Your task to perform on an android device: Go to ESPN.com Image 0: 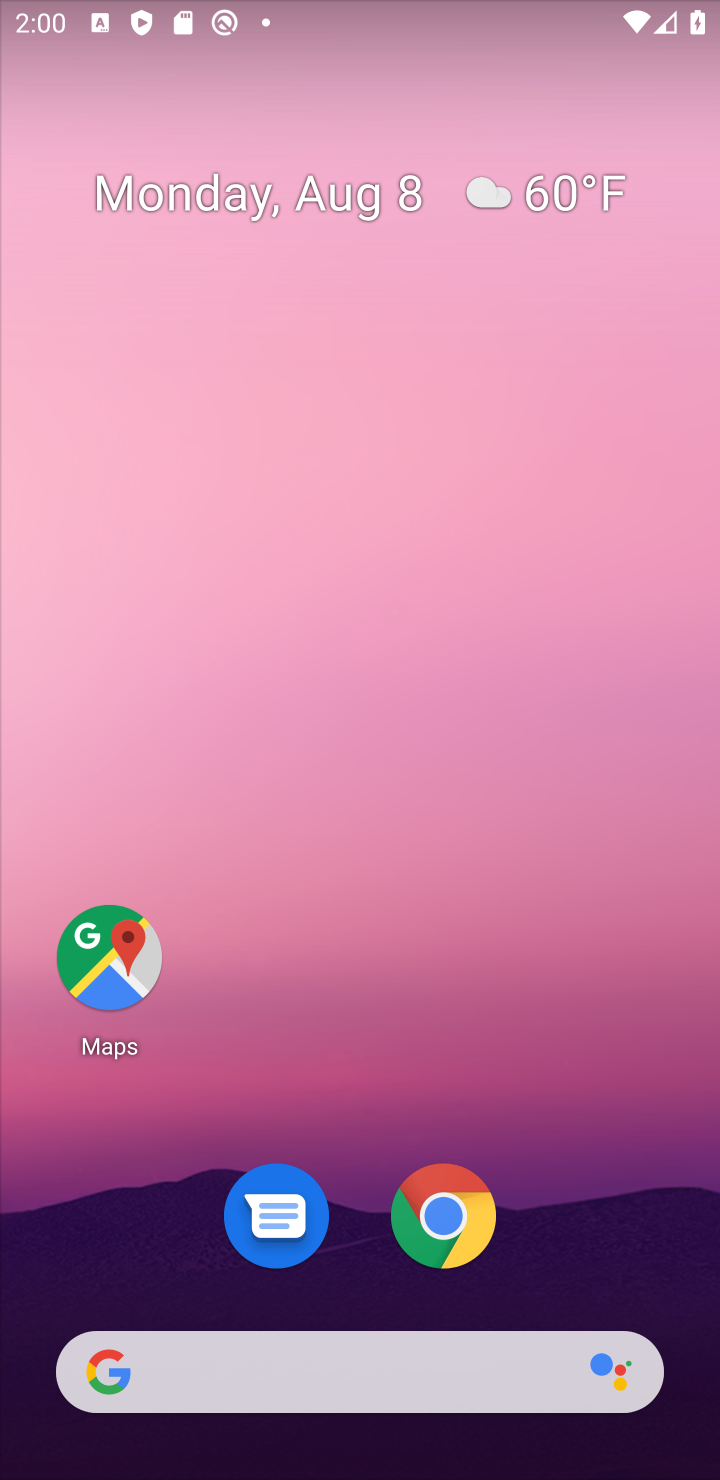
Step 0: drag from (445, 1325) to (469, 213)
Your task to perform on an android device: Go to ESPN.com Image 1: 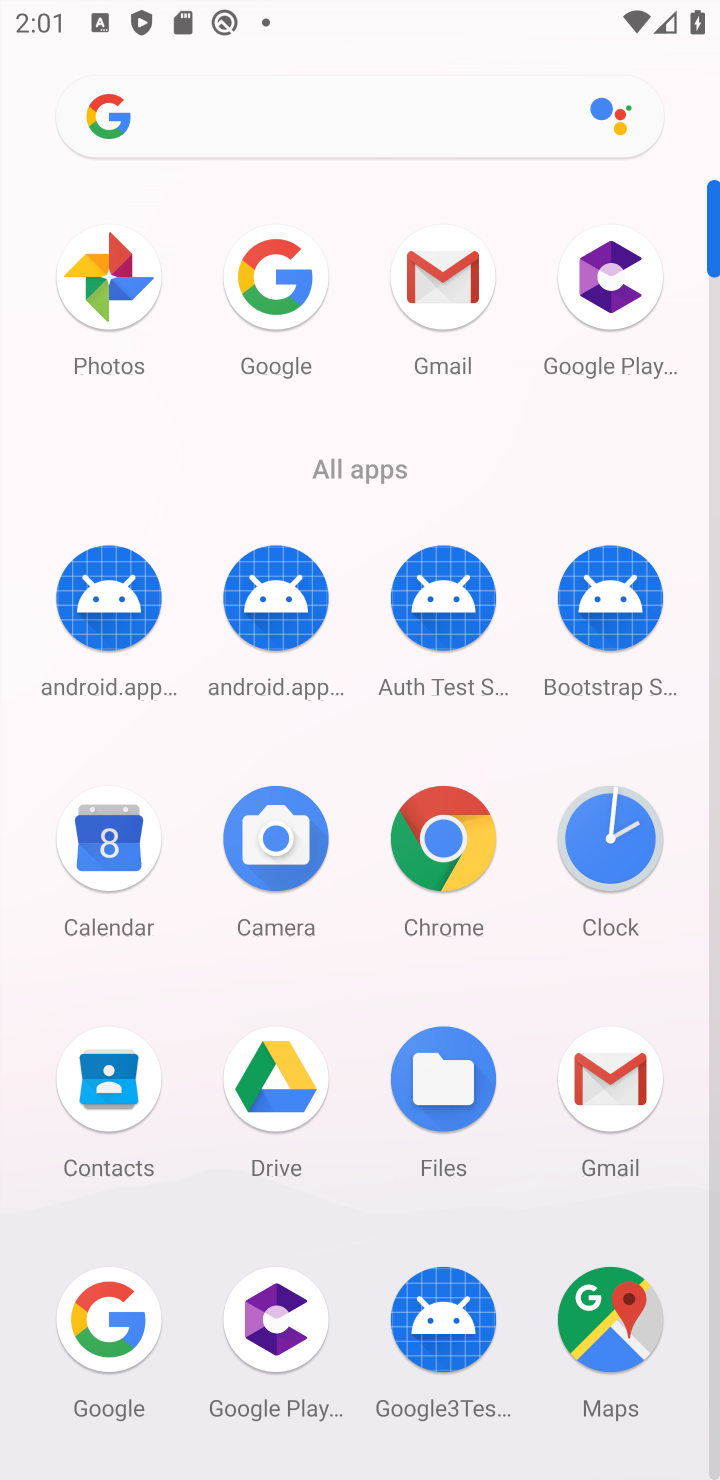
Step 1: click (462, 846)
Your task to perform on an android device: Go to ESPN.com Image 2: 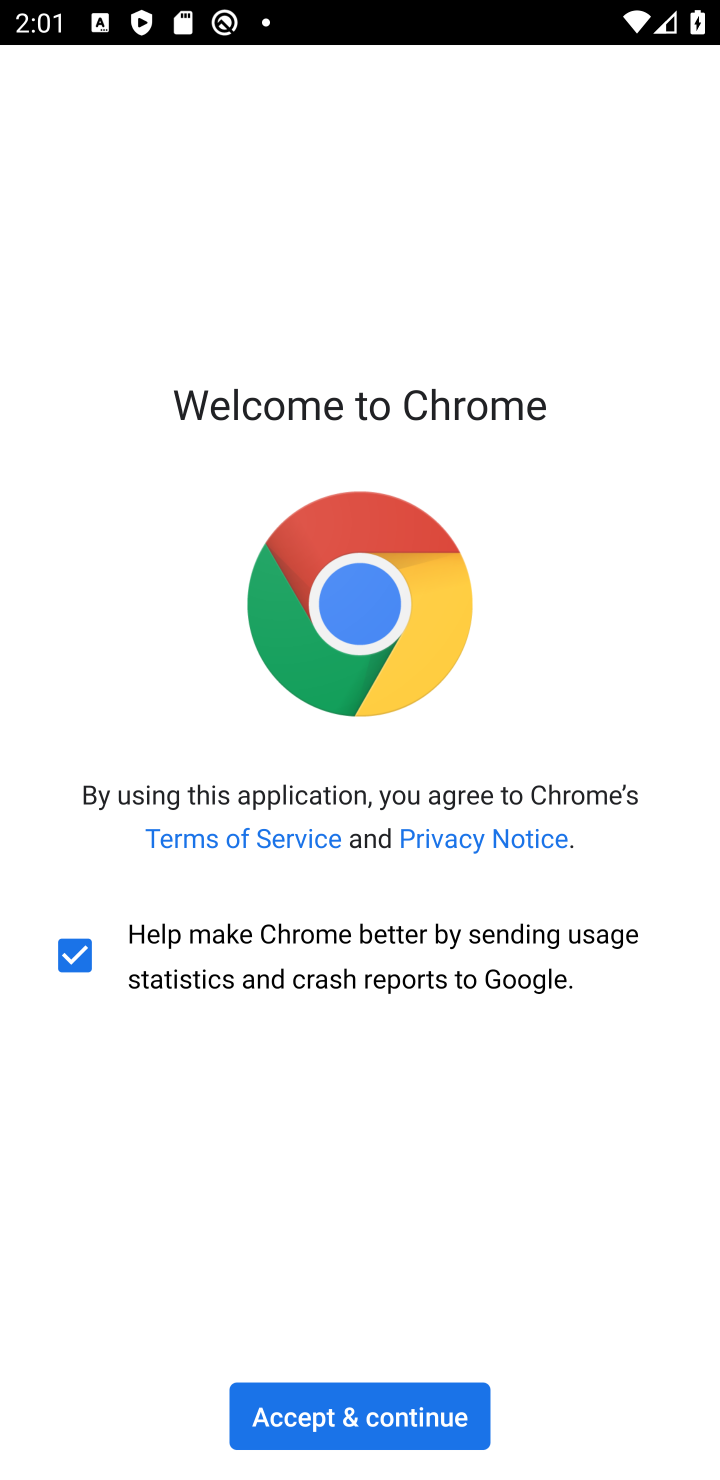
Step 2: click (435, 1416)
Your task to perform on an android device: Go to ESPN.com Image 3: 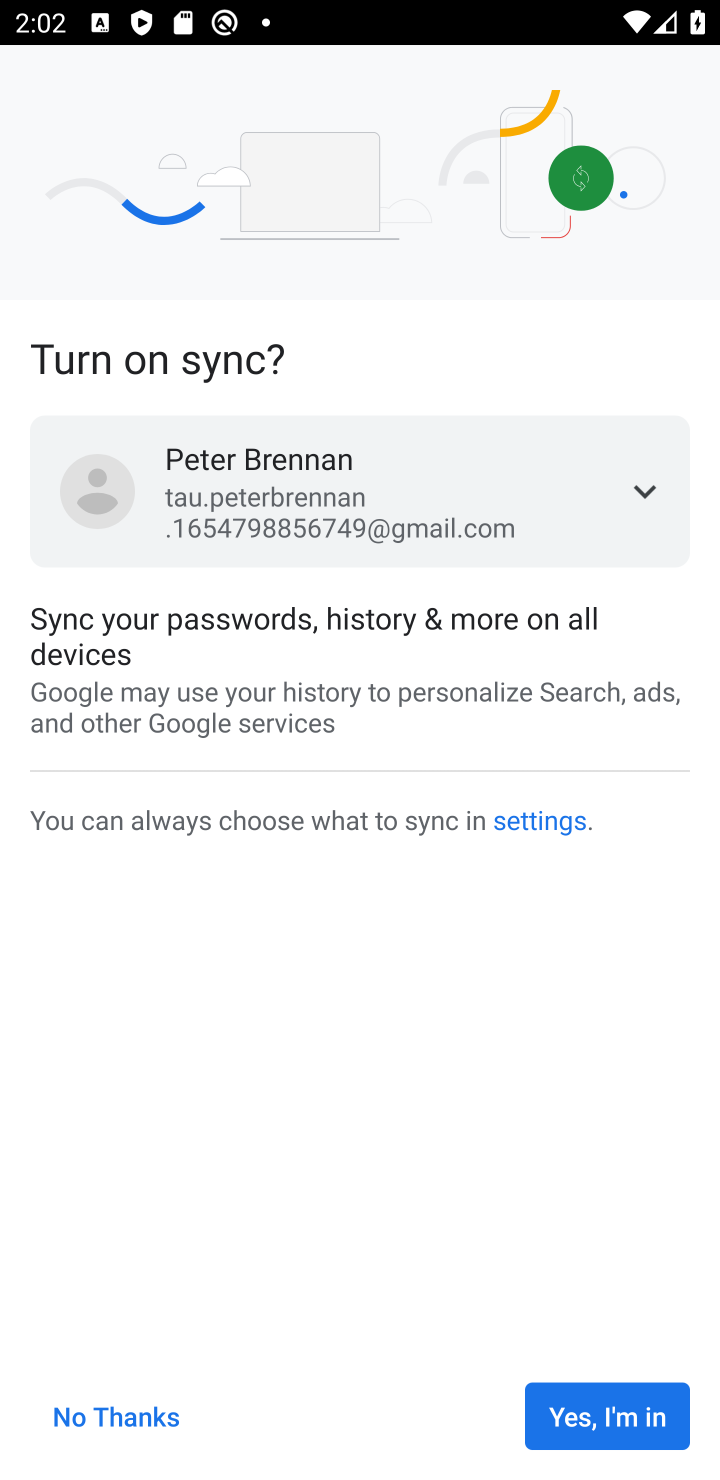
Step 3: click (586, 1411)
Your task to perform on an android device: Go to ESPN.com Image 4: 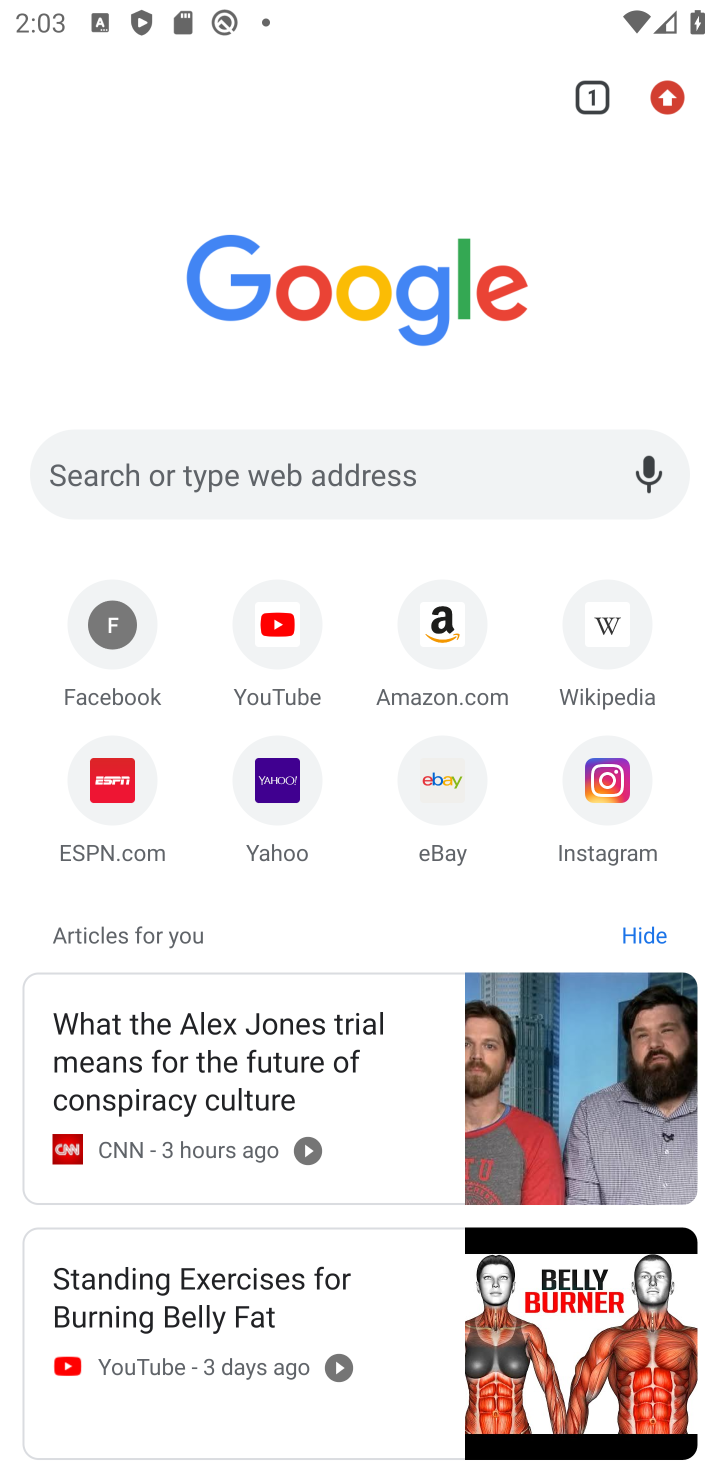
Step 4: click (108, 826)
Your task to perform on an android device: Go to ESPN.com Image 5: 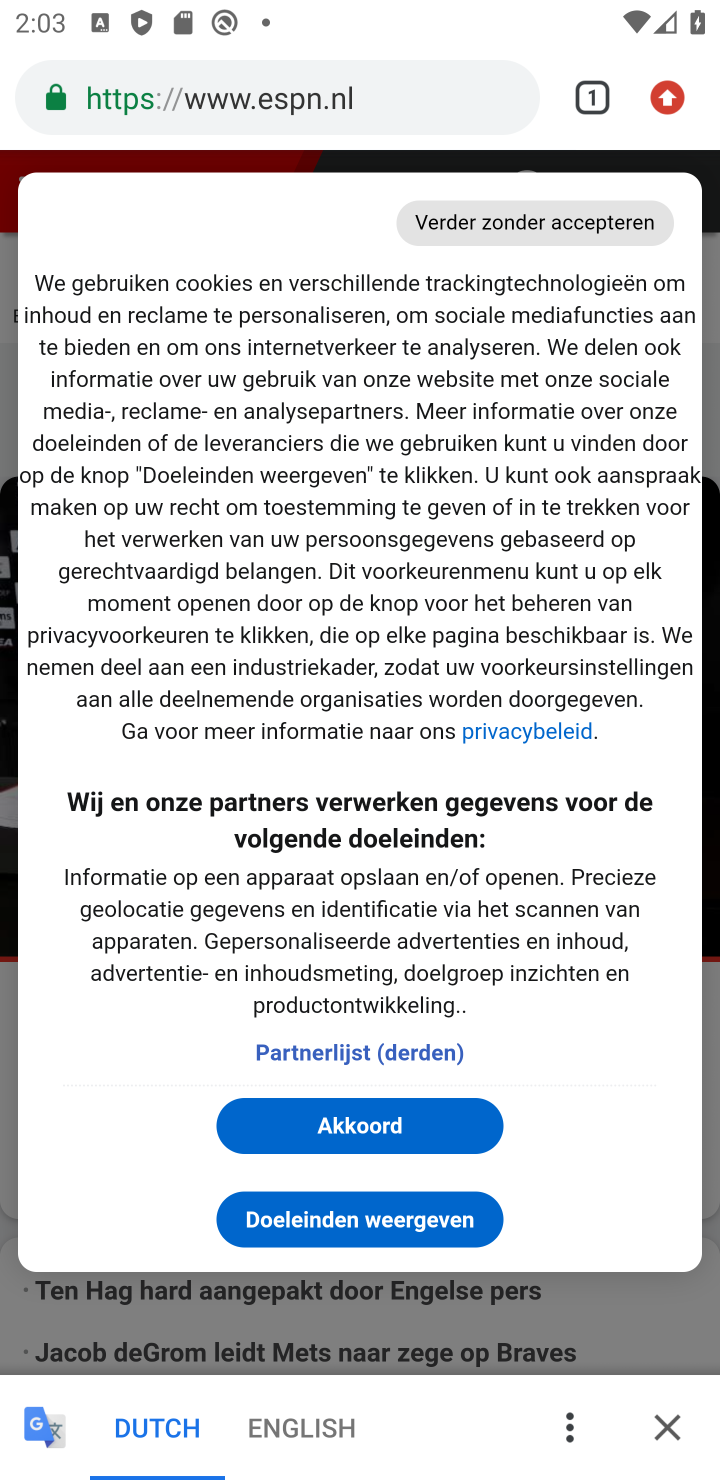
Step 5: task complete